Your task to perform on an android device: turn pop-ups off in chrome Image 0: 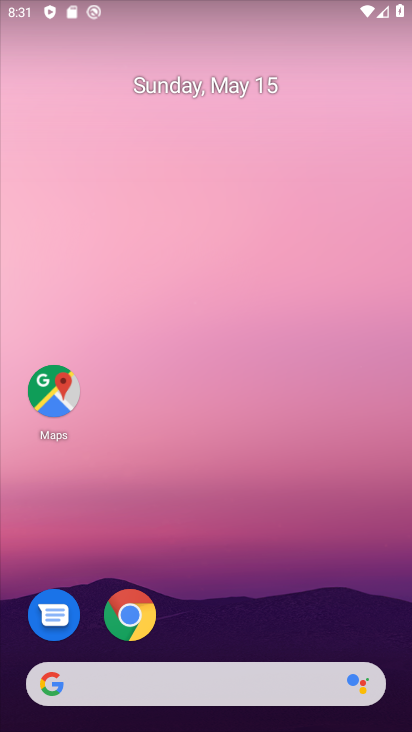
Step 0: drag from (202, 523) to (201, 17)
Your task to perform on an android device: turn pop-ups off in chrome Image 1: 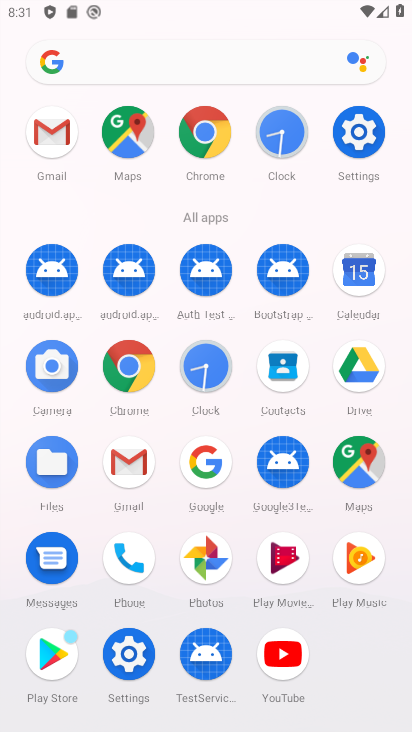
Step 1: click (129, 366)
Your task to perform on an android device: turn pop-ups off in chrome Image 2: 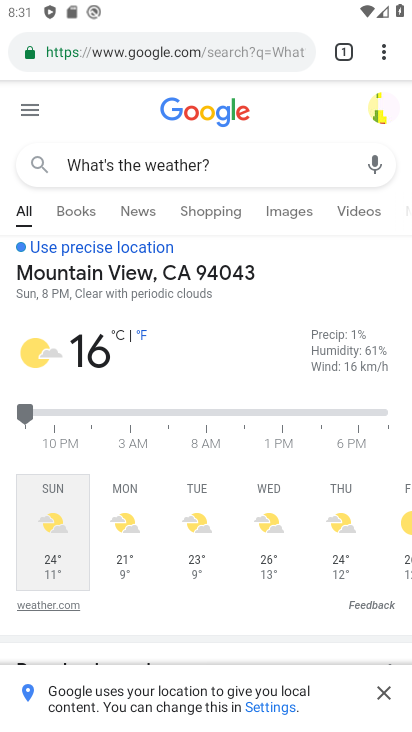
Step 2: drag from (382, 55) to (219, 572)
Your task to perform on an android device: turn pop-ups off in chrome Image 3: 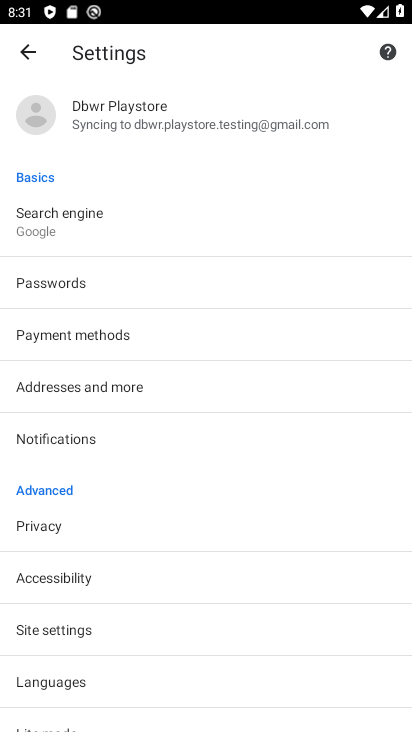
Step 3: click (109, 637)
Your task to perform on an android device: turn pop-ups off in chrome Image 4: 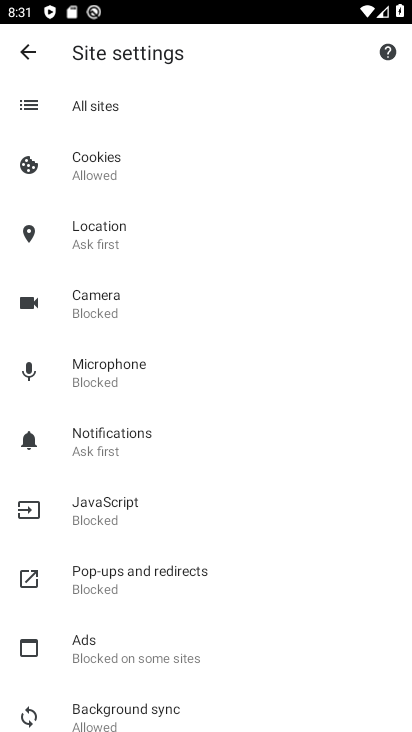
Step 4: click (157, 570)
Your task to perform on an android device: turn pop-ups off in chrome Image 5: 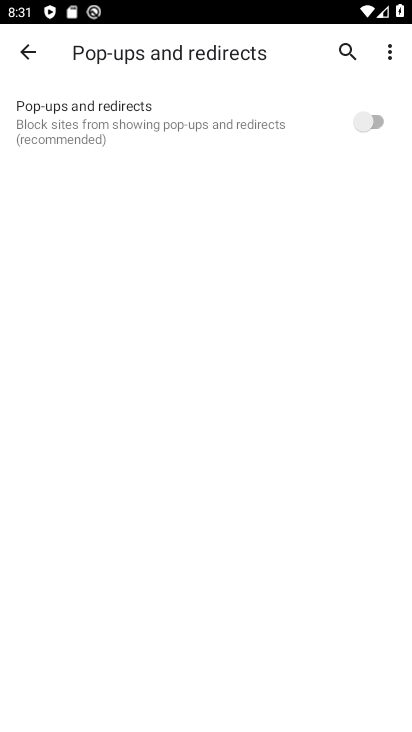
Step 5: task complete